Your task to perform on an android device: toggle notification dots Image 0: 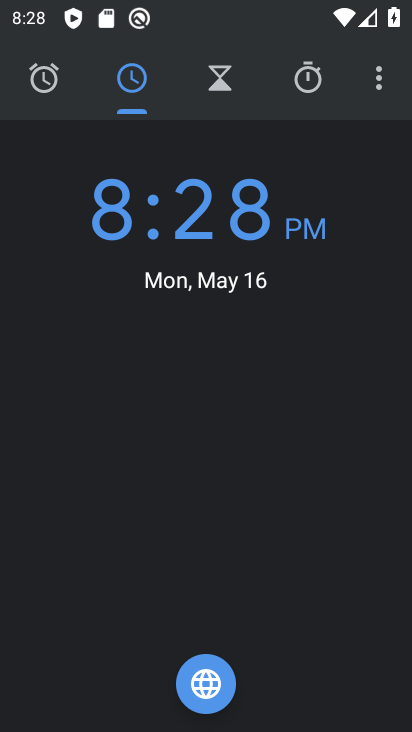
Step 0: press home button
Your task to perform on an android device: toggle notification dots Image 1: 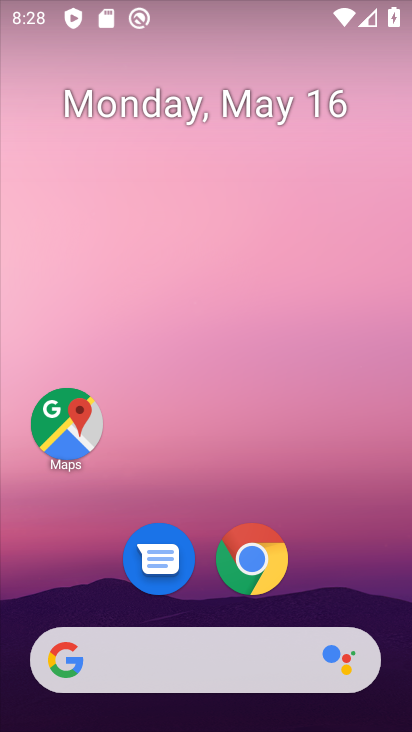
Step 1: drag from (298, 611) to (371, 86)
Your task to perform on an android device: toggle notification dots Image 2: 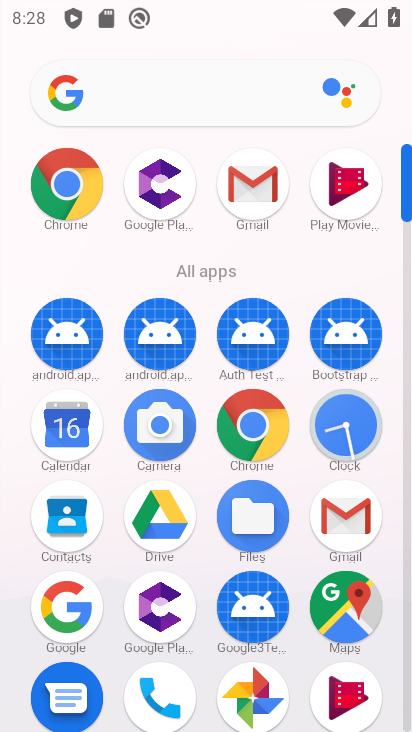
Step 2: drag from (207, 658) to (205, 426)
Your task to perform on an android device: toggle notification dots Image 3: 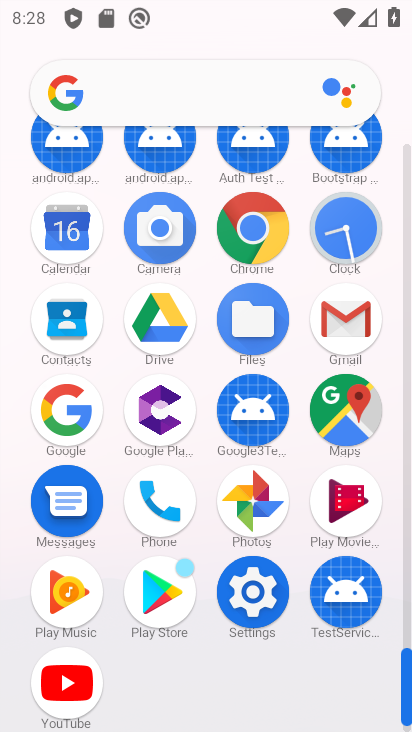
Step 3: click (257, 590)
Your task to perform on an android device: toggle notification dots Image 4: 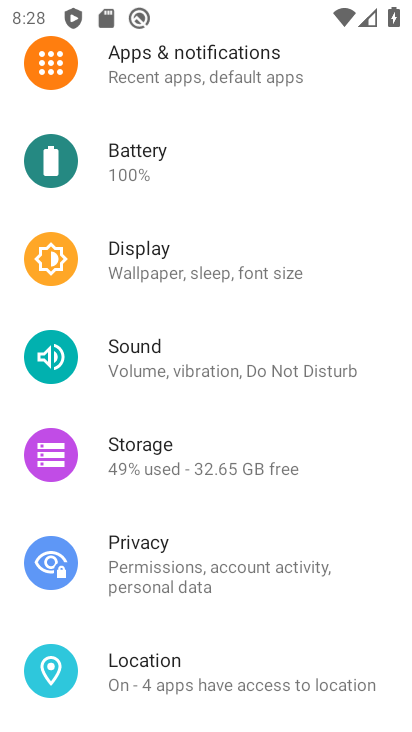
Step 4: drag from (238, 281) to (286, 496)
Your task to perform on an android device: toggle notification dots Image 5: 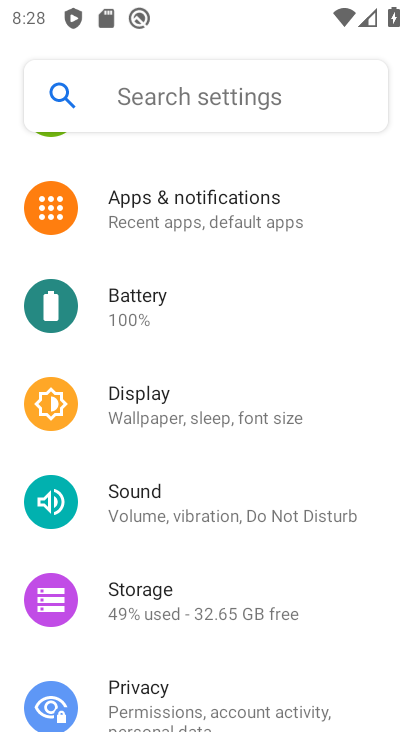
Step 5: click (248, 213)
Your task to perform on an android device: toggle notification dots Image 6: 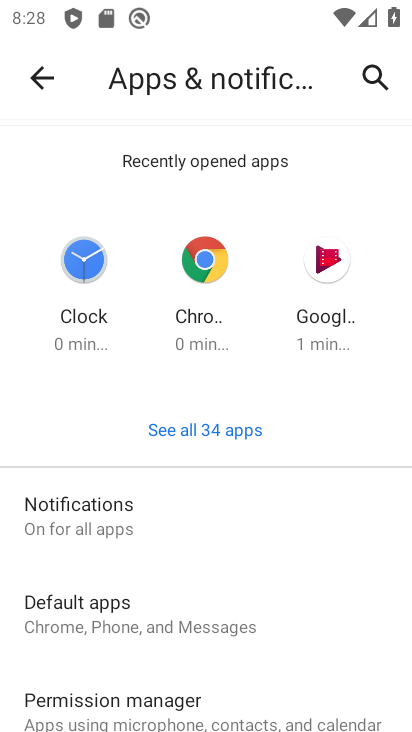
Step 6: click (199, 520)
Your task to perform on an android device: toggle notification dots Image 7: 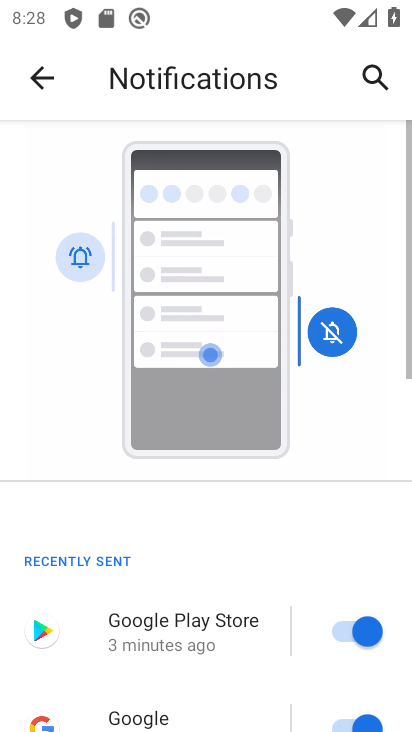
Step 7: drag from (164, 578) to (176, 146)
Your task to perform on an android device: toggle notification dots Image 8: 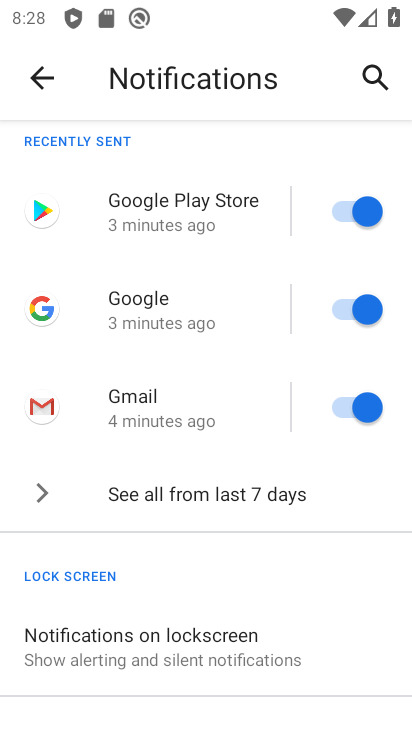
Step 8: drag from (219, 538) to (227, 346)
Your task to perform on an android device: toggle notification dots Image 9: 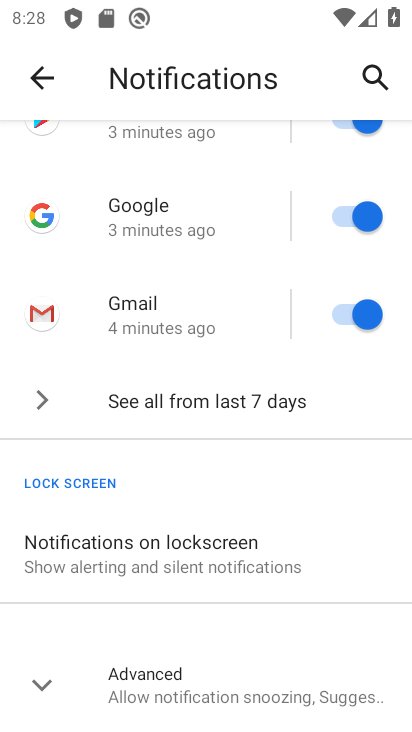
Step 9: click (183, 660)
Your task to perform on an android device: toggle notification dots Image 10: 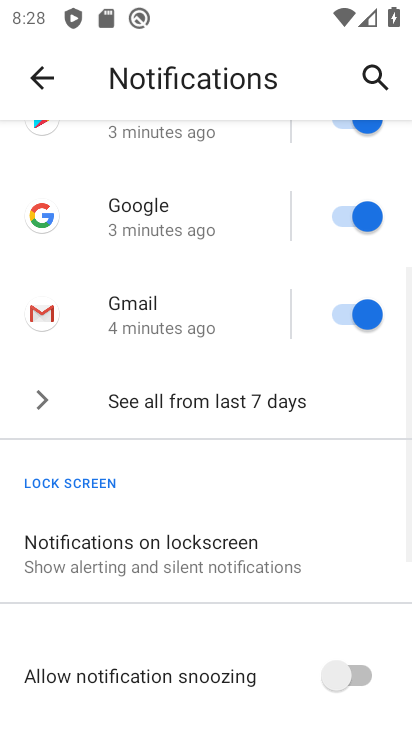
Step 10: drag from (172, 622) to (207, 360)
Your task to perform on an android device: toggle notification dots Image 11: 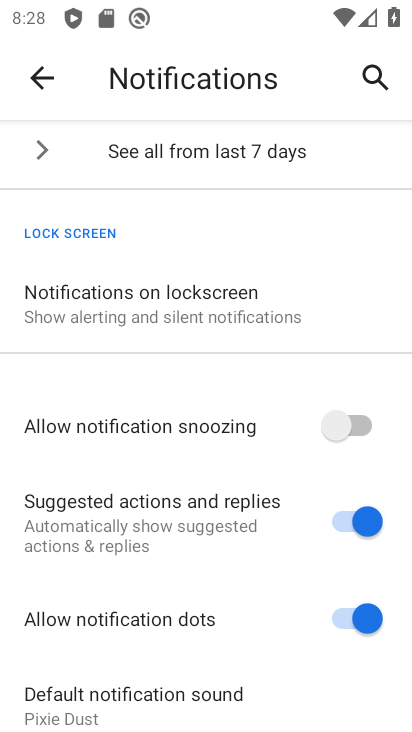
Step 11: click (351, 616)
Your task to perform on an android device: toggle notification dots Image 12: 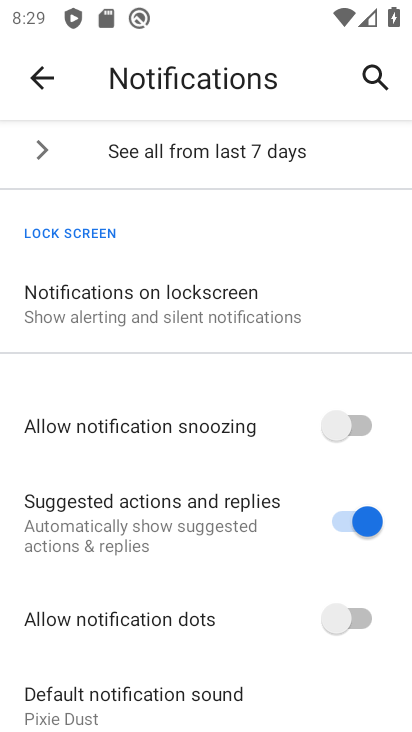
Step 12: task complete